Your task to perform on an android device: Go to Google Image 0: 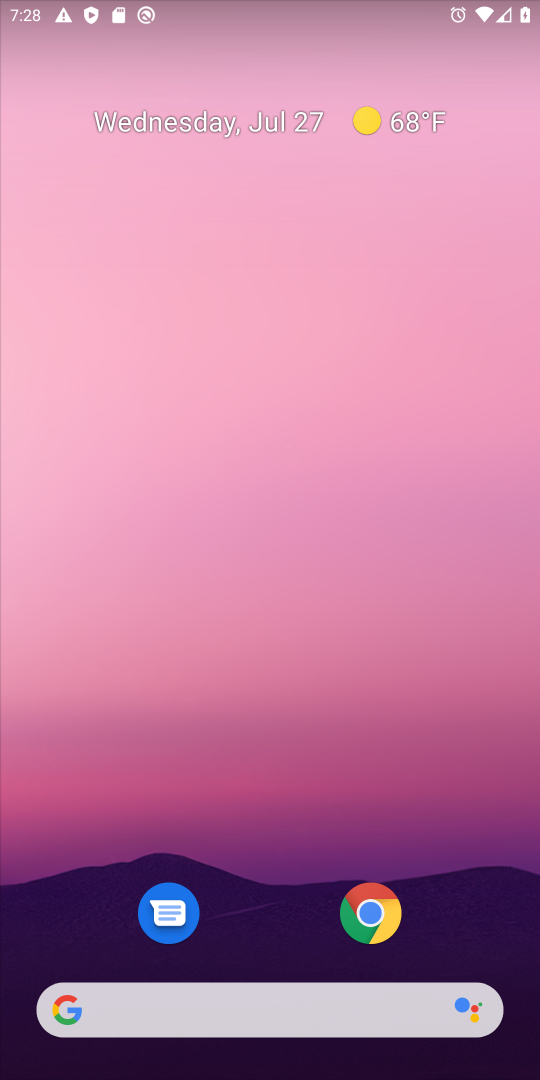
Step 0: drag from (338, 857) to (399, 275)
Your task to perform on an android device: Go to Google Image 1: 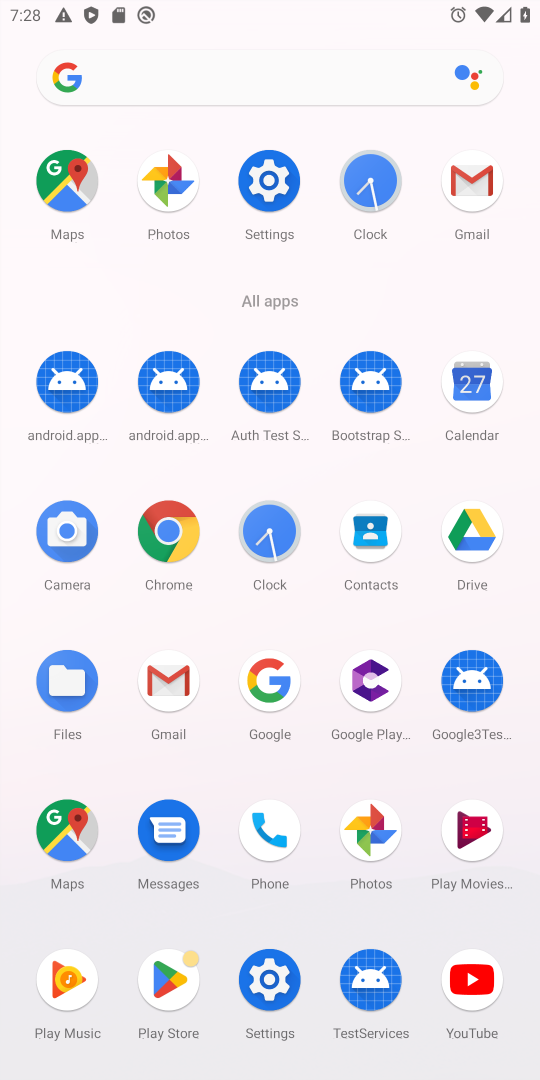
Step 1: click (279, 680)
Your task to perform on an android device: Go to Google Image 2: 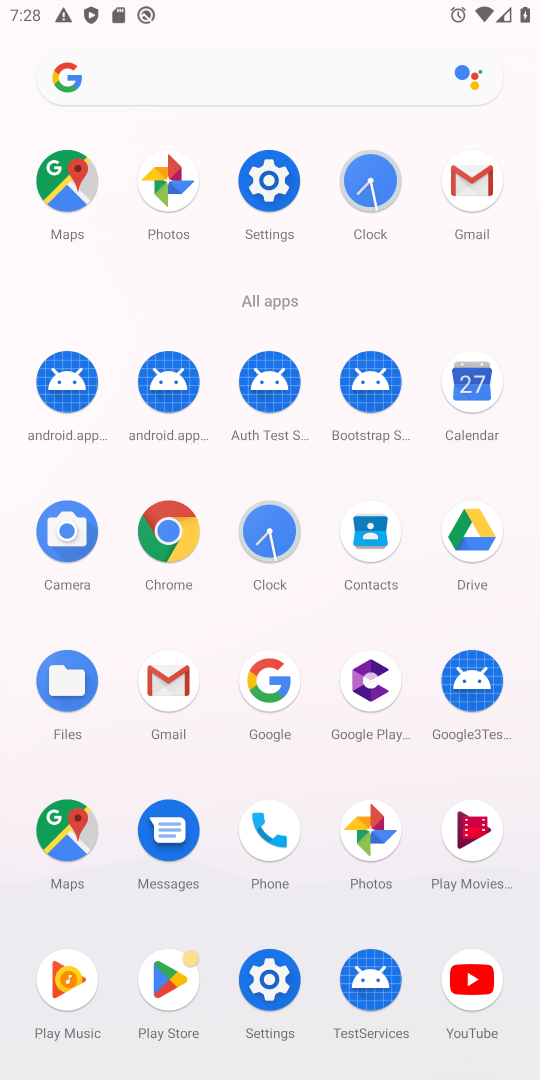
Step 2: click (279, 680)
Your task to perform on an android device: Go to Google Image 3: 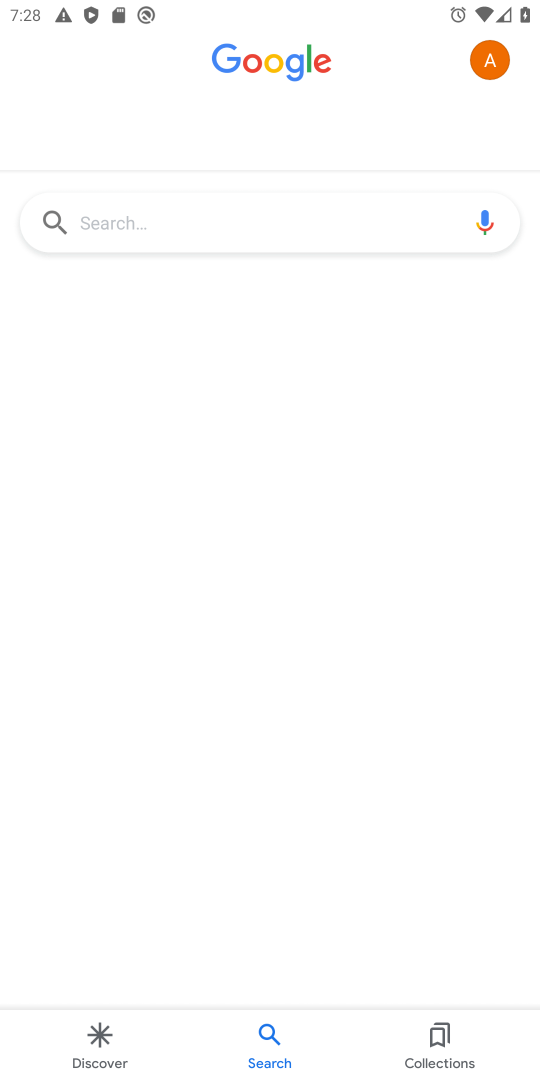
Step 3: task complete